Your task to perform on an android device: Do I have any events today? Image 0: 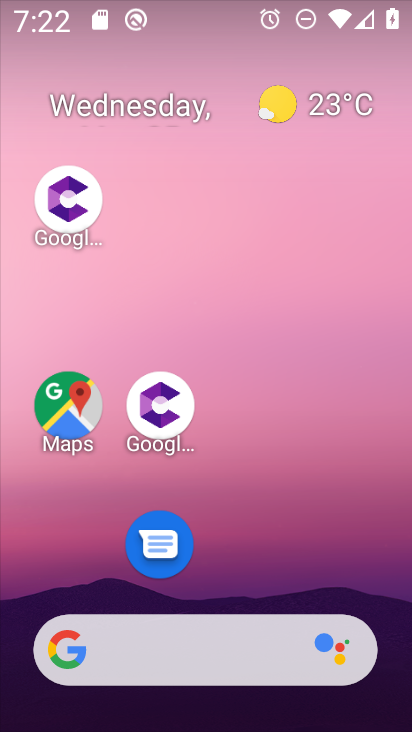
Step 0: drag from (270, 547) to (209, 15)
Your task to perform on an android device: Do I have any events today? Image 1: 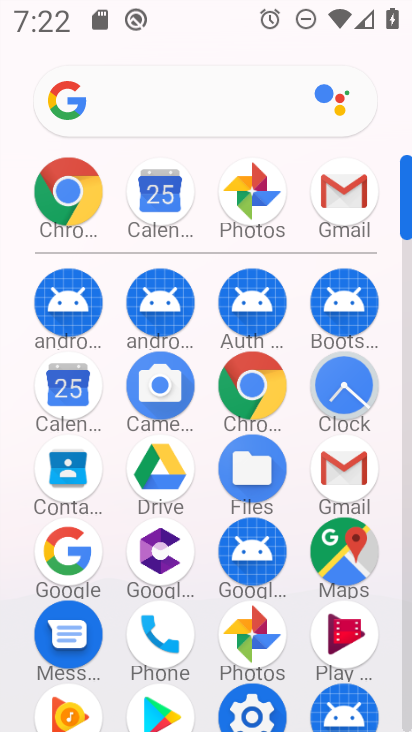
Step 1: click (59, 394)
Your task to perform on an android device: Do I have any events today? Image 2: 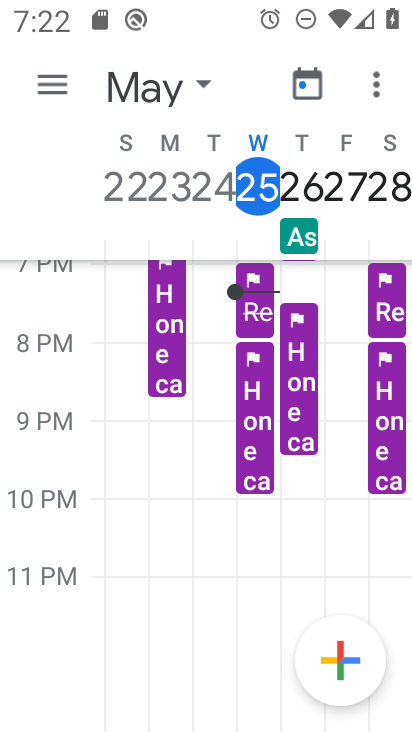
Step 2: click (255, 182)
Your task to perform on an android device: Do I have any events today? Image 3: 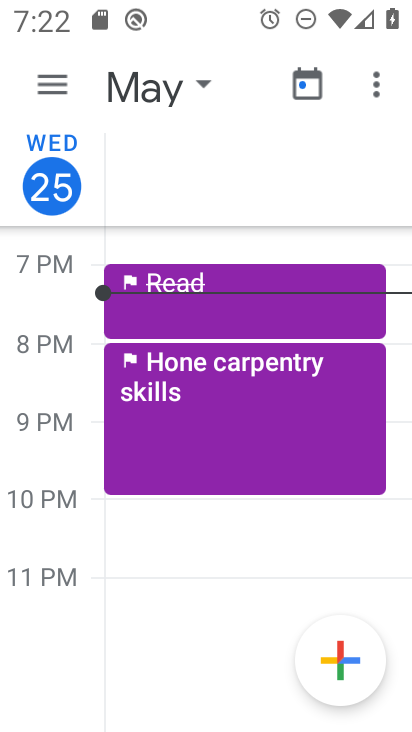
Step 3: task complete